Your task to perform on an android device: allow cookies in the chrome app Image 0: 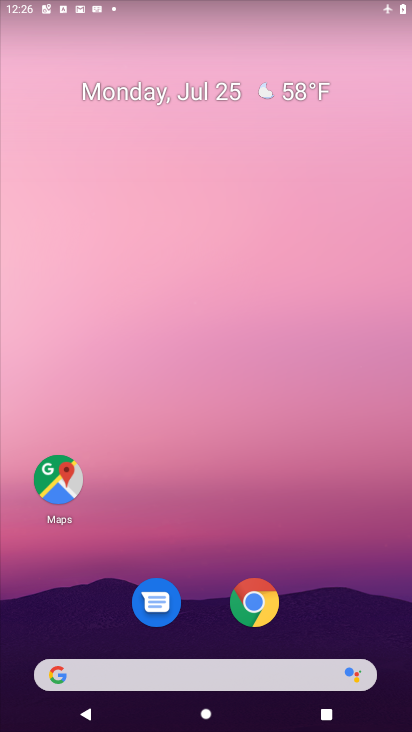
Step 0: click (258, 616)
Your task to perform on an android device: allow cookies in the chrome app Image 1: 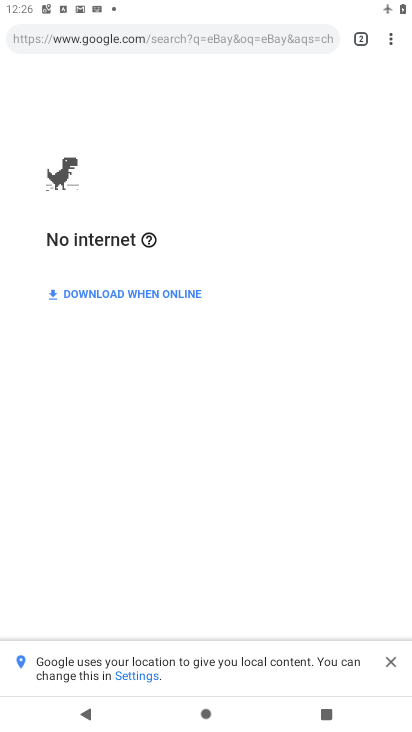
Step 1: click (387, 39)
Your task to perform on an android device: allow cookies in the chrome app Image 2: 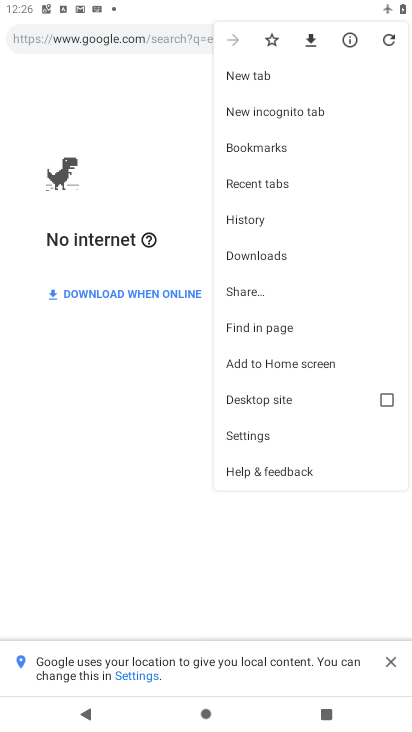
Step 2: click (267, 443)
Your task to perform on an android device: allow cookies in the chrome app Image 3: 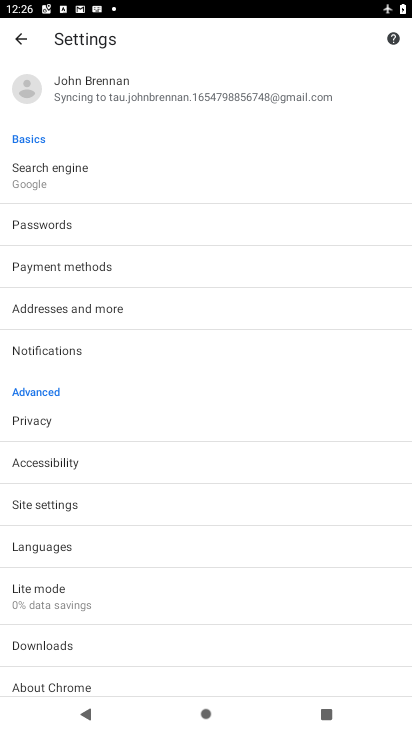
Step 3: click (111, 503)
Your task to perform on an android device: allow cookies in the chrome app Image 4: 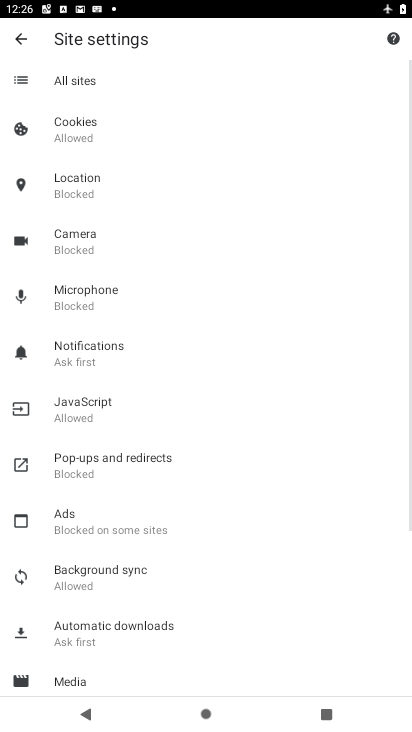
Step 4: click (113, 135)
Your task to perform on an android device: allow cookies in the chrome app Image 5: 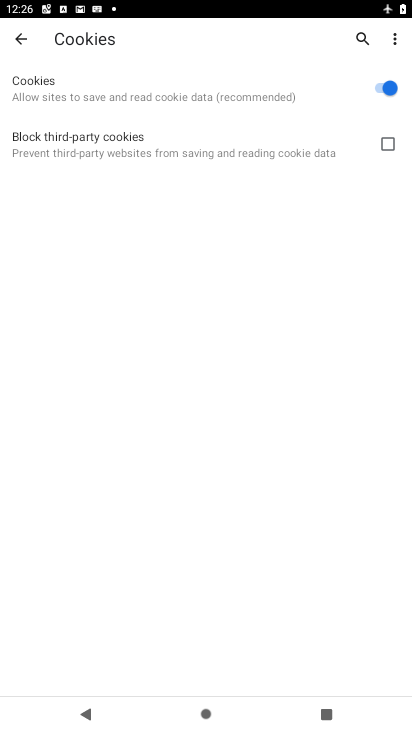
Step 5: task complete